Your task to perform on an android device: empty trash in google photos Image 0: 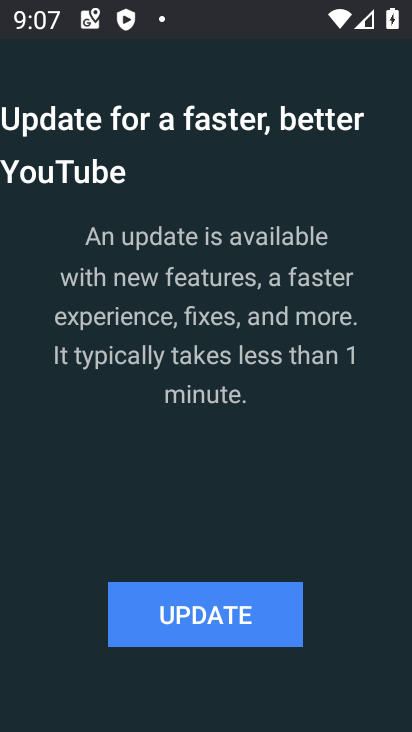
Step 0: press home button
Your task to perform on an android device: empty trash in google photos Image 1: 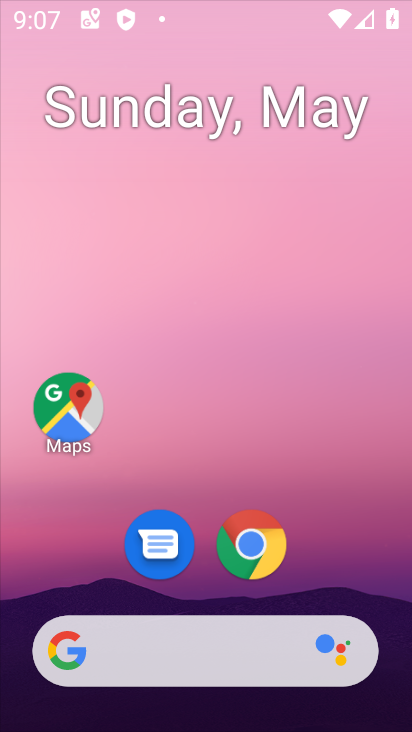
Step 1: drag from (350, 516) to (378, 35)
Your task to perform on an android device: empty trash in google photos Image 2: 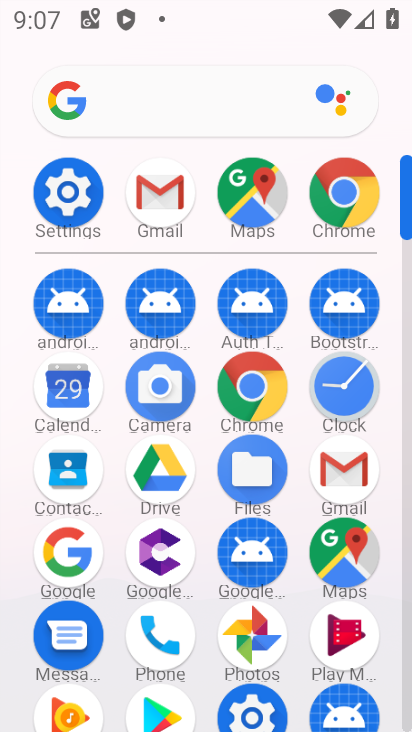
Step 2: click (252, 627)
Your task to perform on an android device: empty trash in google photos Image 3: 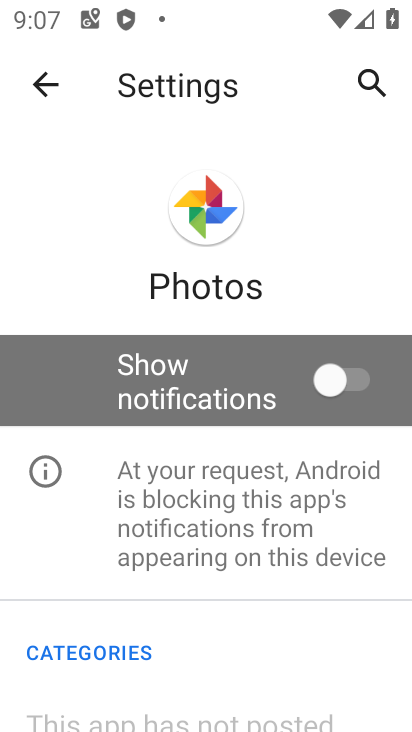
Step 3: click (36, 90)
Your task to perform on an android device: empty trash in google photos Image 4: 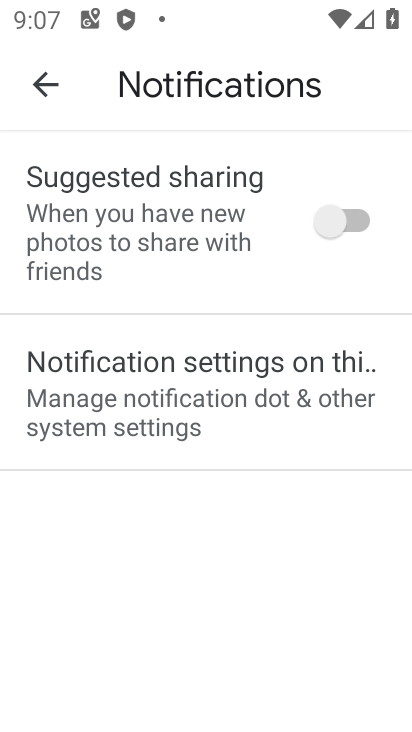
Step 4: click (36, 90)
Your task to perform on an android device: empty trash in google photos Image 5: 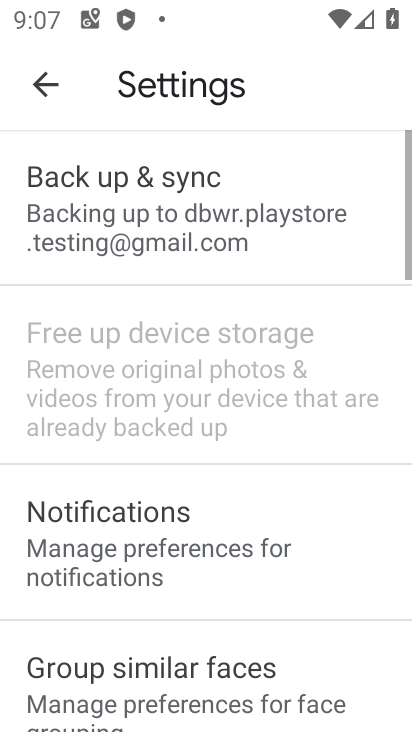
Step 5: click (36, 90)
Your task to perform on an android device: empty trash in google photos Image 6: 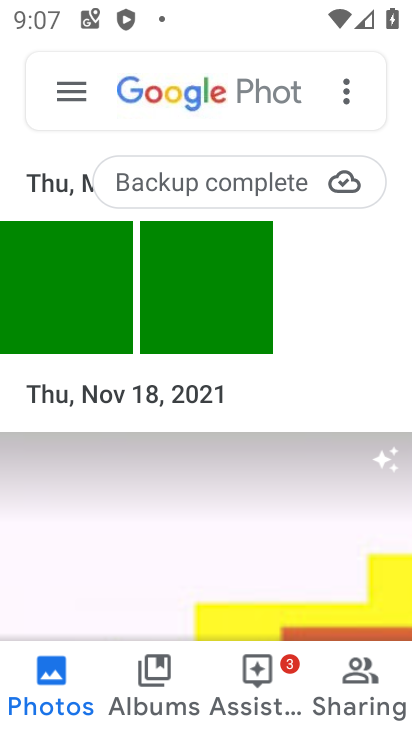
Step 6: click (55, 90)
Your task to perform on an android device: empty trash in google photos Image 7: 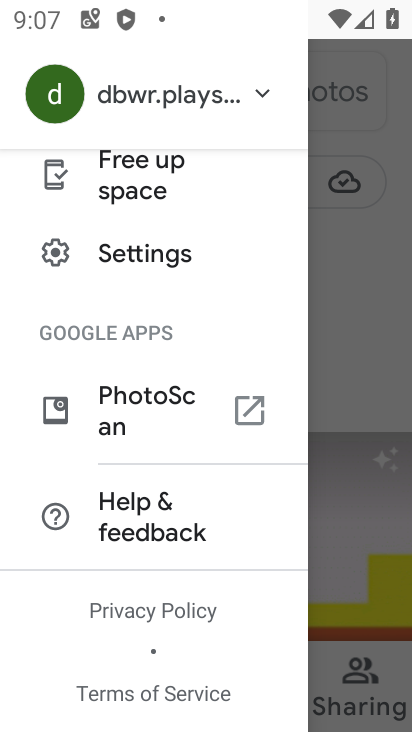
Step 7: drag from (128, 248) to (223, 634)
Your task to perform on an android device: empty trash in google photos Image 8: 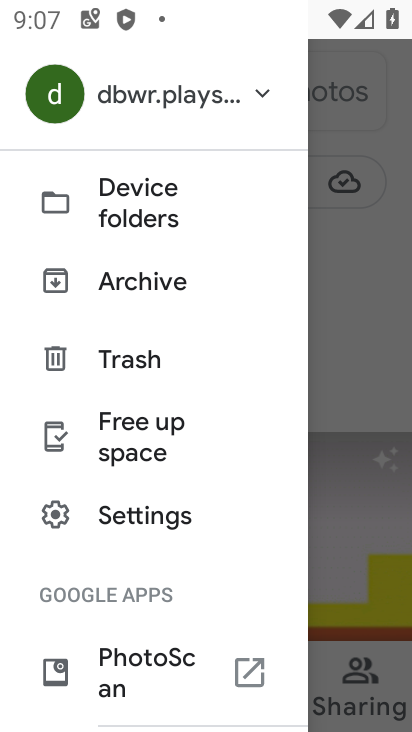
Step 8: click (108, 377)
Your task to perform on an android device: empty trash in google photos Image 9: 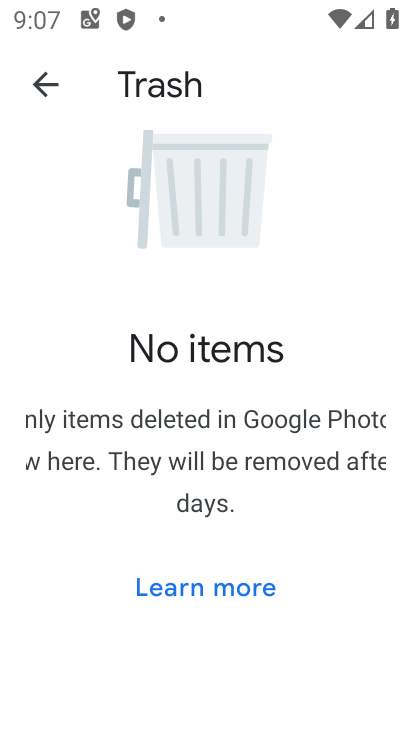
Step 9: task complete